Your task to perform on an android device: add a contact Image 0: 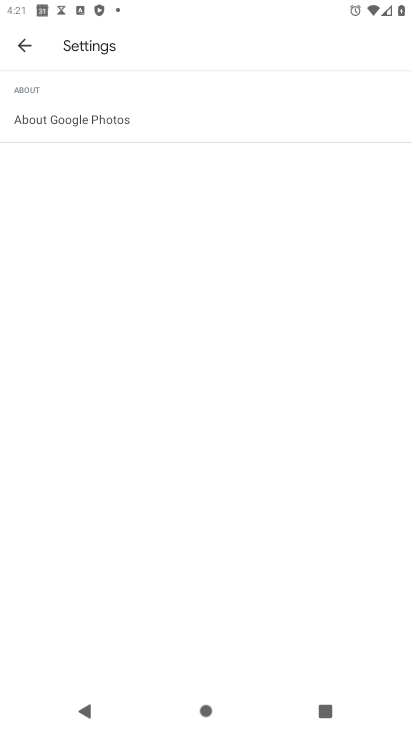
Step 0: press home button
Your task to perform on an android device: add a contact Image 1: 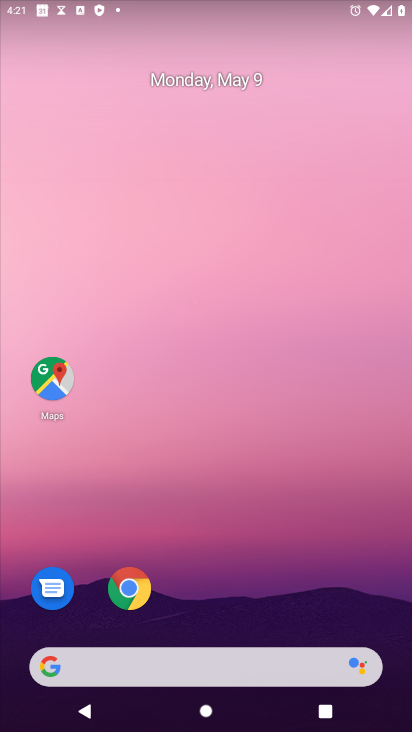
Step 1: drag from (248, 556) to (175, 62)
Your task to perform on an android device: add a contact Image 2: 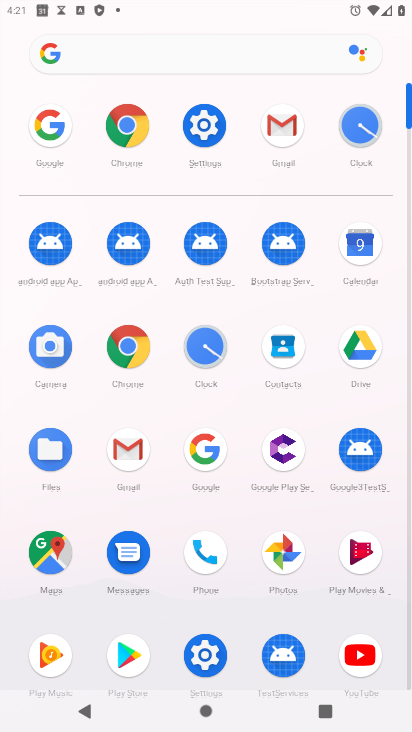
Step 2: click (289, 342)
Your task to perform on an android device: add a contact Image 3: 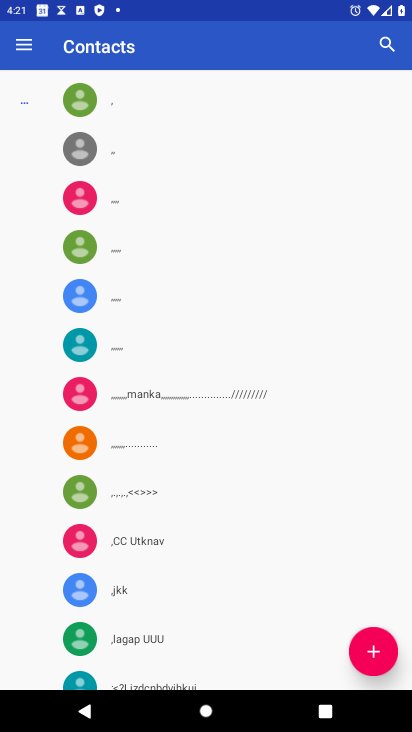
Step 3: click (345, 675)
Your task to perform on an android device: add a contact Image 4: 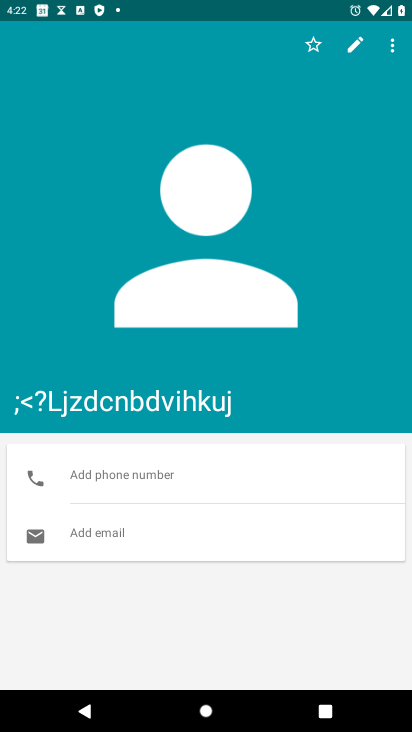
Step 4: press back button
Your task to perform on an android device: add a contact Image 5: 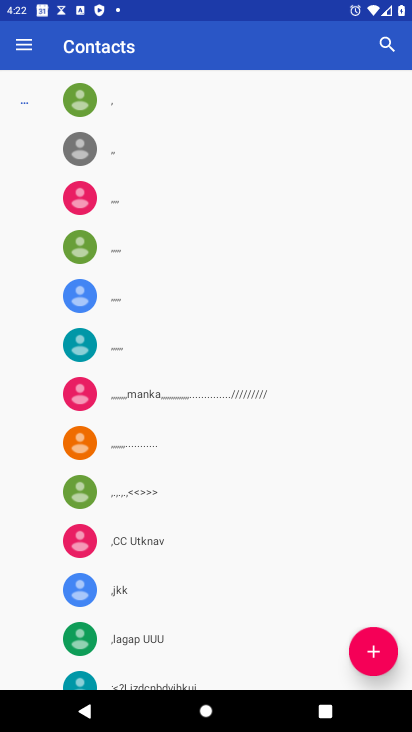
Step 5: click (374, 653)
Your task to perform on an android device: add a contact Image 6: 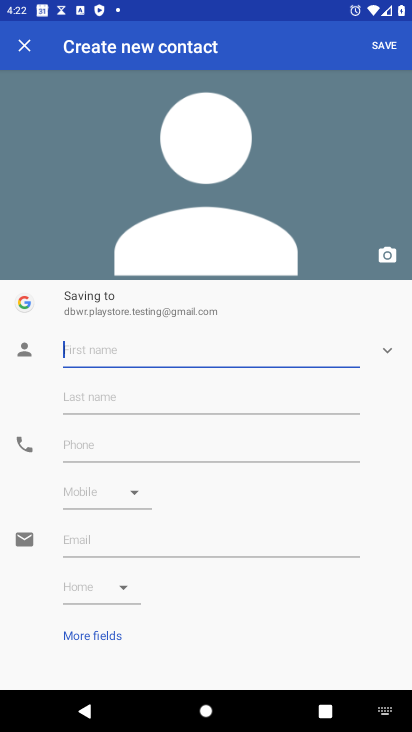
Step 6: type "hghd"
Your task to perform on an android device: add a contact Image 7: 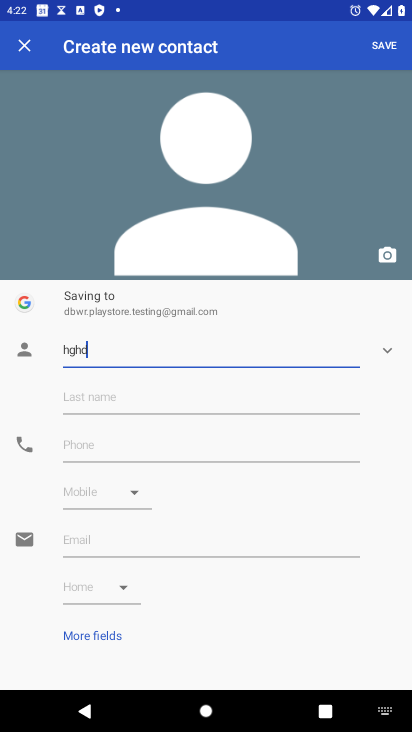
Step 7: type ""
Your task to perform on an android device: add a contact Image 8: 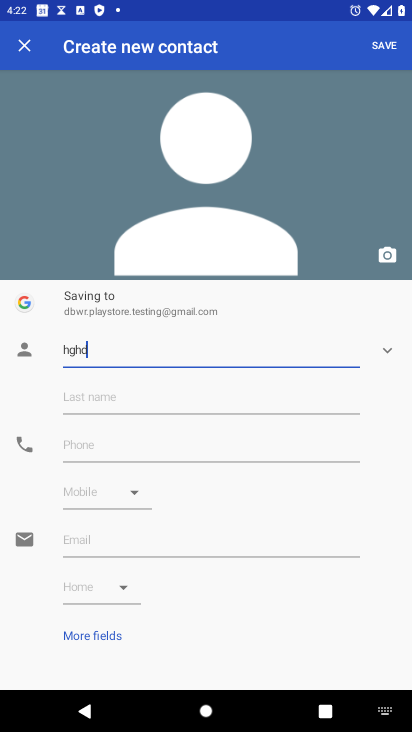
Step 8: click (165, 397)
Your task to perform on an android device: add a contact Image 9: 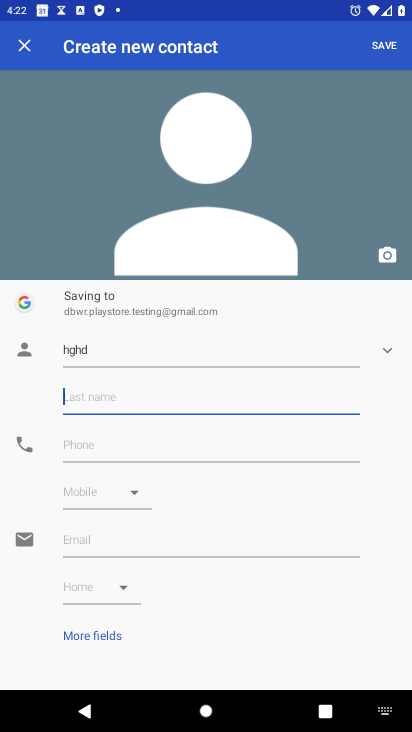
Step 9: type "gfdfff"
Your task to perform on an android device: add a contact Image 10: 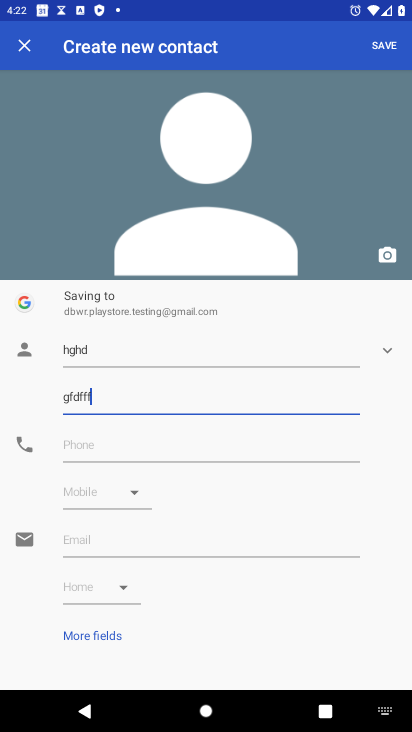
Step 10: type ""
Your task to perform on an android device: add a contact Image 11: 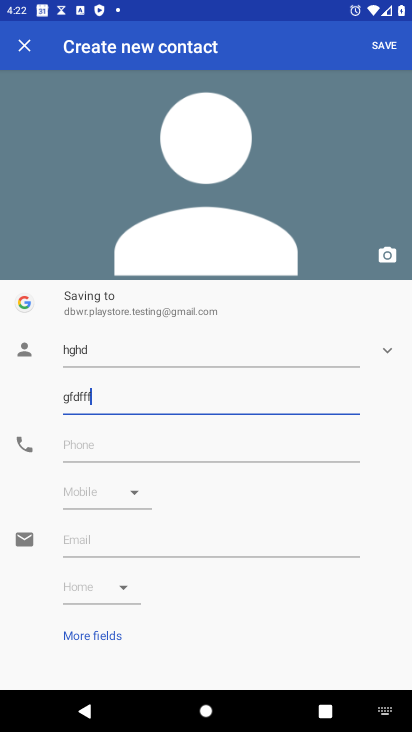
Step 11: click (163, 439)
Your task to perform on an android device: add a contact Image 12: 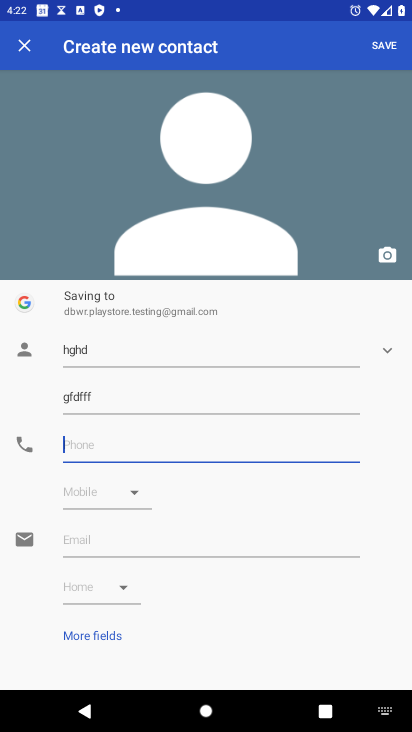
Step 12: type "53456345645"
Your task to perform on an android device: add a contact Image 13: 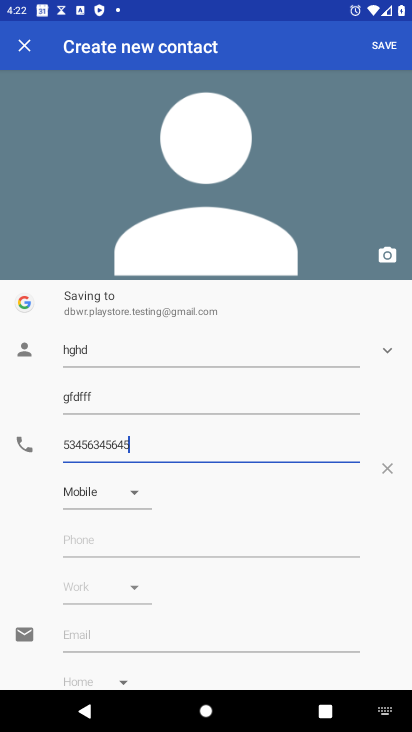
Step 13: type ""
Your task to perform on an android device: add a contact Image 14: 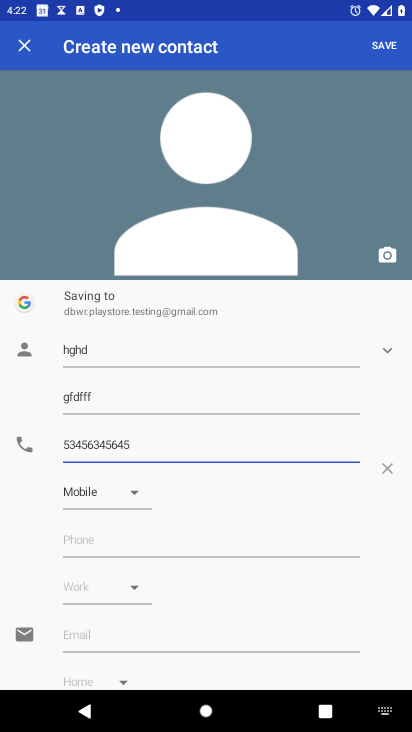
Step 14: click (368, 53)
Your task to perform on an android device: add a contact Image 15: 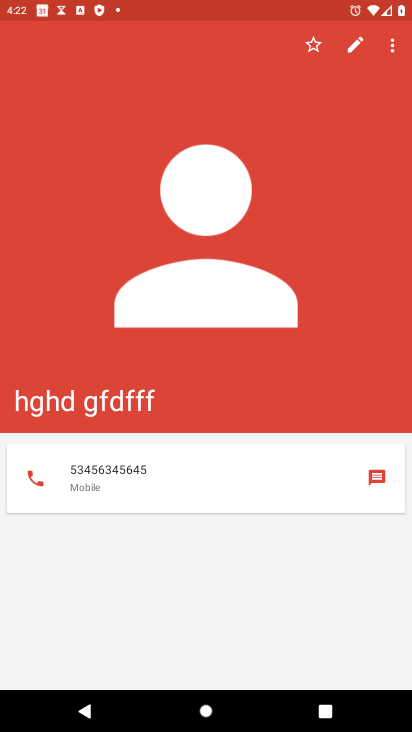
Step 15: task complete